Your task to perform on an android device: Turn on the flashlight Image 0: 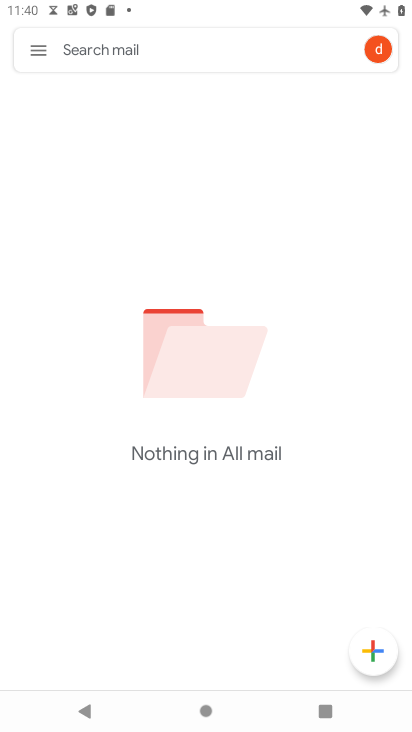
Step 0: drag from (170, 591) to (98, 147)
Your task to perform on an android device: Turn on the flashlight Image 1: 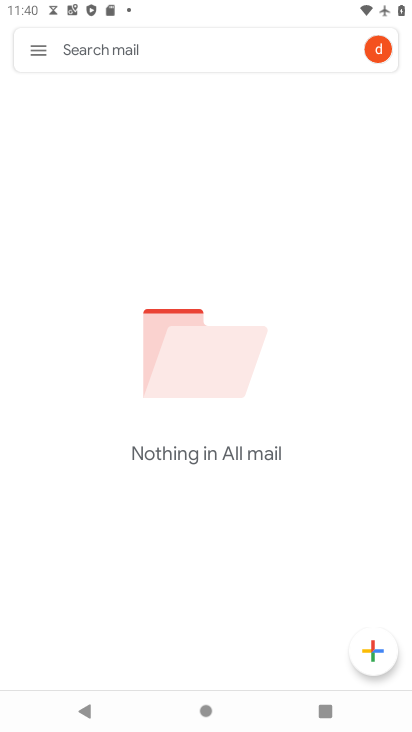
Step 1: task complete